Your task to perform on an android device: turn pop-ups on in chrome Image 0: 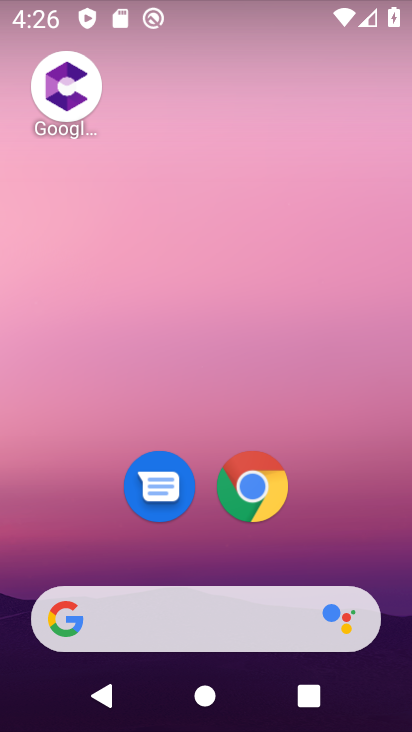
Step 0: click (257, 496)
Your task to perform on an android device: turn pop-ups on in chrome Image 1: 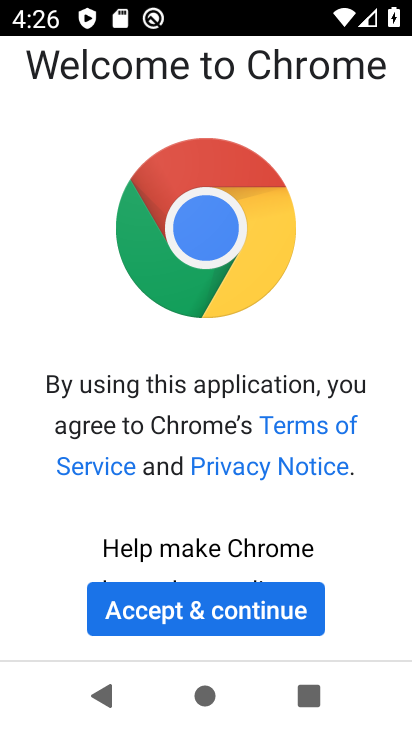
Step 1: click (232, 619)
Your task to perform on an android device: turn pop-ups on in chrome Image 2: 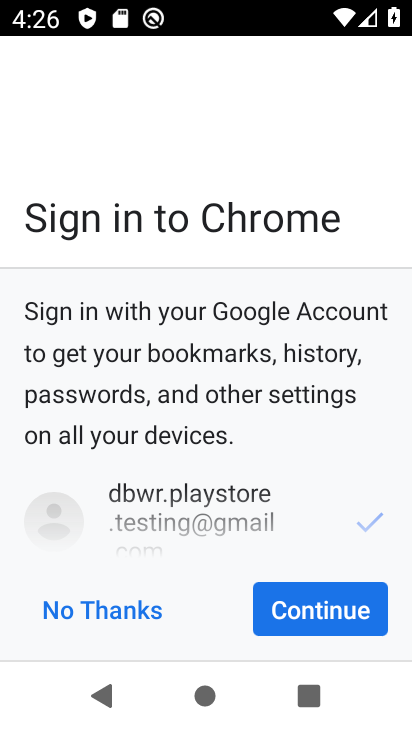
Step 2: click (276, 613)
Your task to perform on an android device: turn pop-ups on in chrome Image 3: 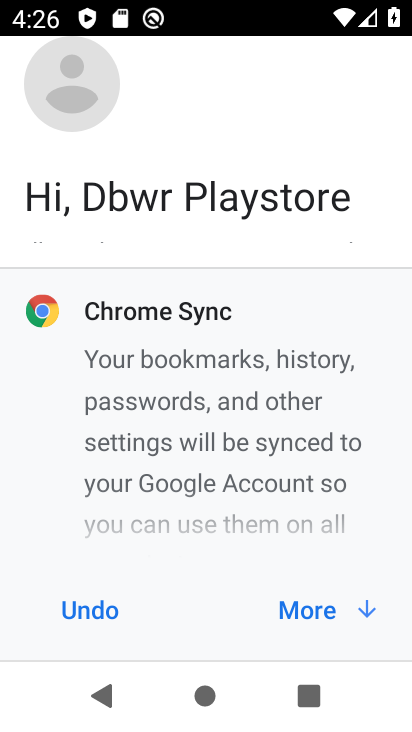
Step 3: click (285, 622)
Your task to perform on an android device: turn pop-ups on in chrome Image 4: 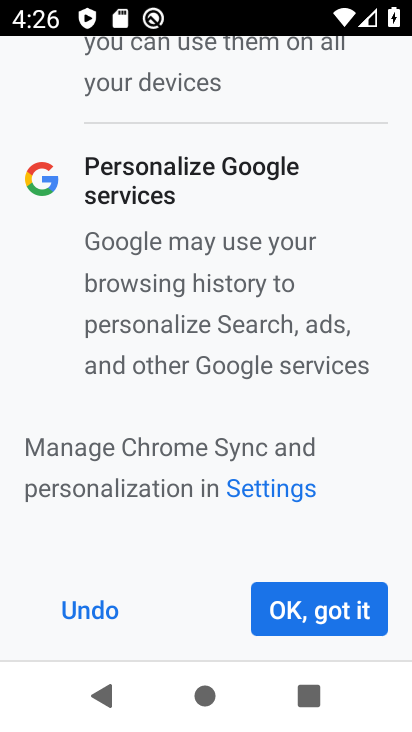
Step 4: click (286, 622)
Your task to perform on an android device: turn pop-ups on in chrome Image 5: 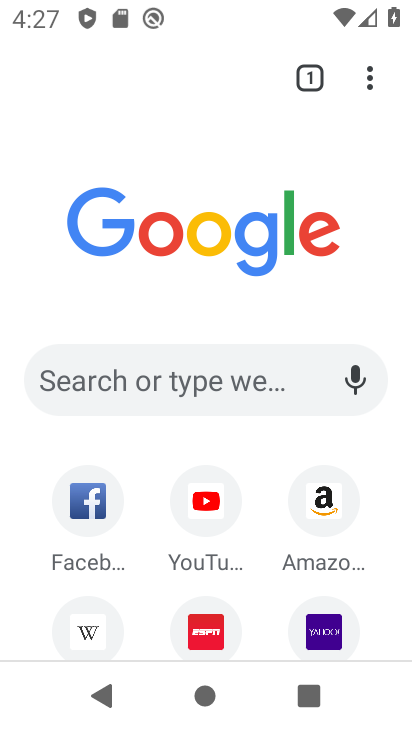
Step 5: click (377, 78)
Your task to perform on an android device: turn pop-ups on in chrome Image 6: 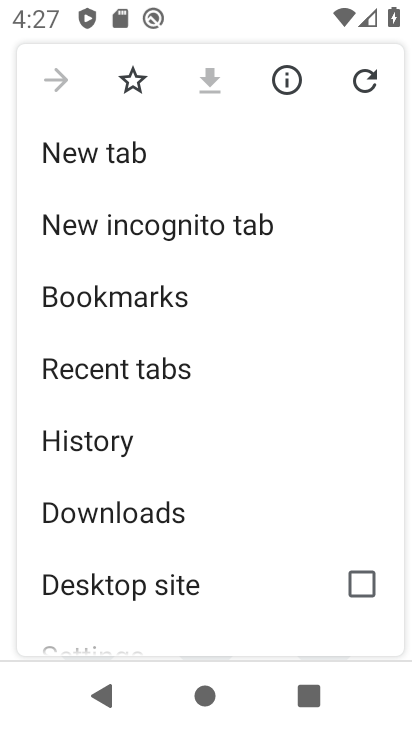
Step 6: drag from (176, 618) to (193, 153)
Your task to perform on an android device: turn pop-ups on in chrome Image 7: 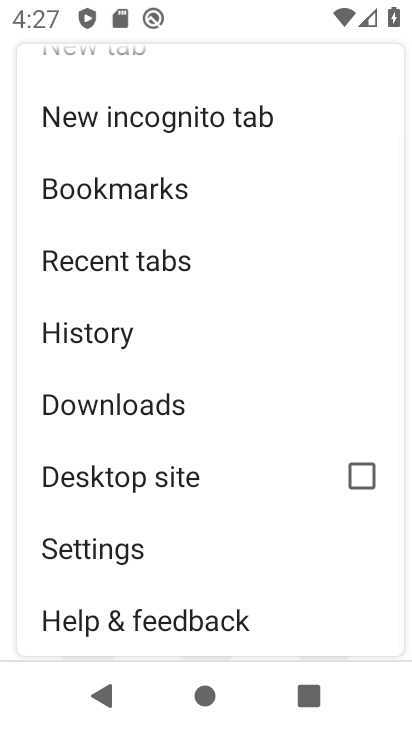
Step 7: click (222, 565)
Your task to perform on an android device: turn pop-ups on in chrome Image 8: 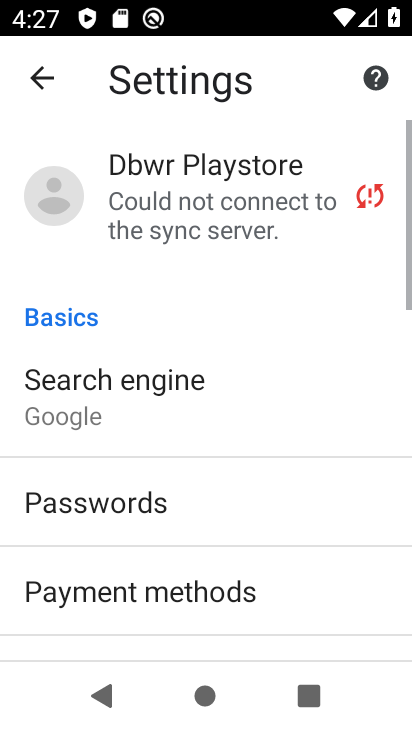
Step 8: drag from (222, 565) to (173, 29)
Your task to perform on an android device: turn pop-ups on in chrome Image 9: 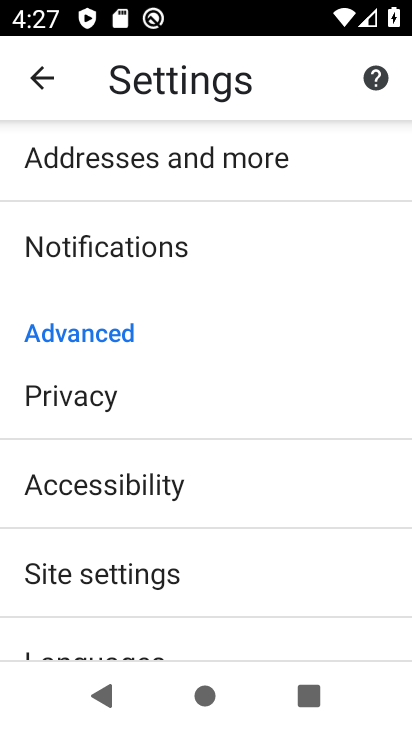
Step 9: click (213, 582)
Your task to perform on an android device: turn pop-ups on in chrome Image 10: 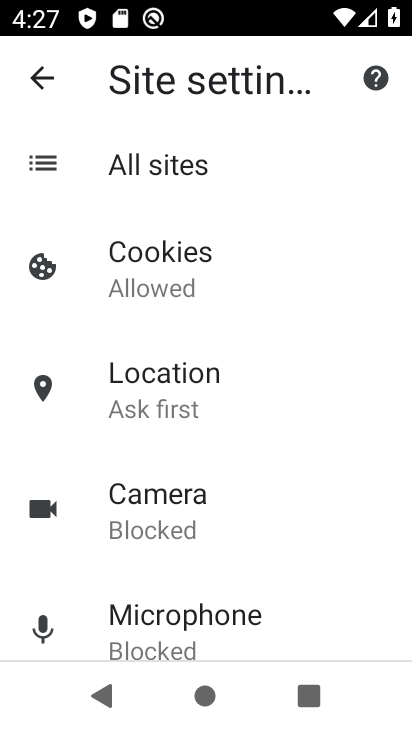
Step 10: drag from (237, 624) to (203, 188)
Your task to perform on an android device: turn pop-ups on in chrome Image 11: 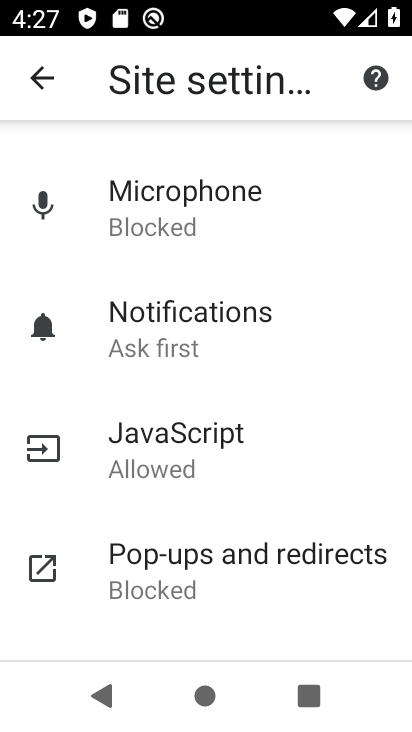
Step 11: click (289, 556)
Your task to perform on an android device: turn pop-ups on in chrome Image 12: 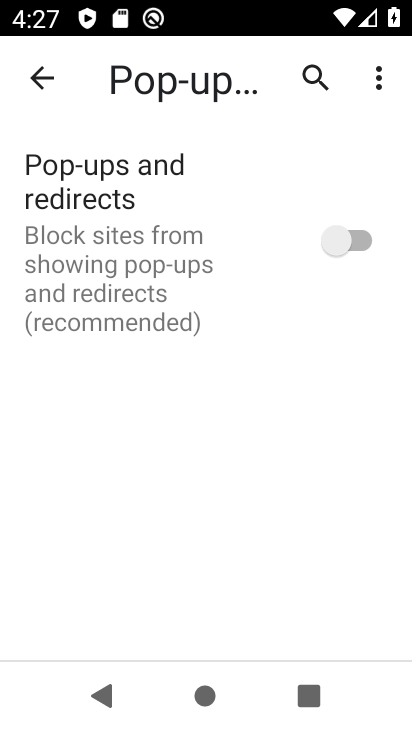
Step 12: click (362, 242)
Your task to perform on an android device: turn pop-ups on in chrome Image 13: 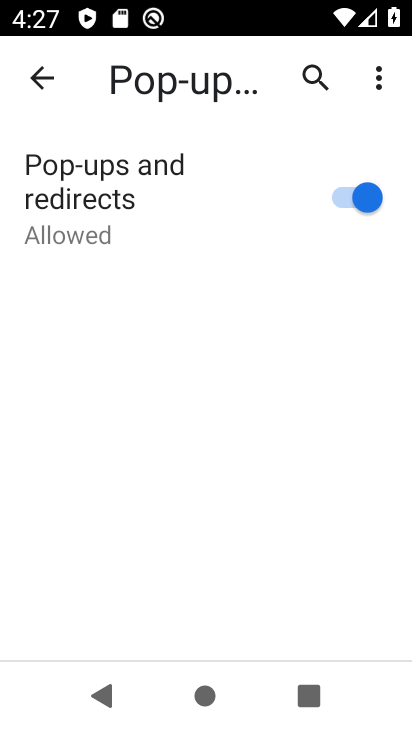
Step 13: task complete